Your task to perform on an android device: see creations saved in the google photos Image 0: 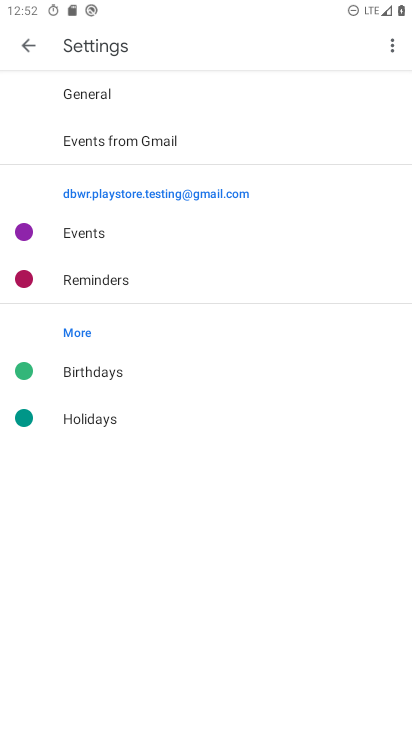
Step 0: press home button
Your task to perform on an android device: see creations saved in the google photos Image 1: 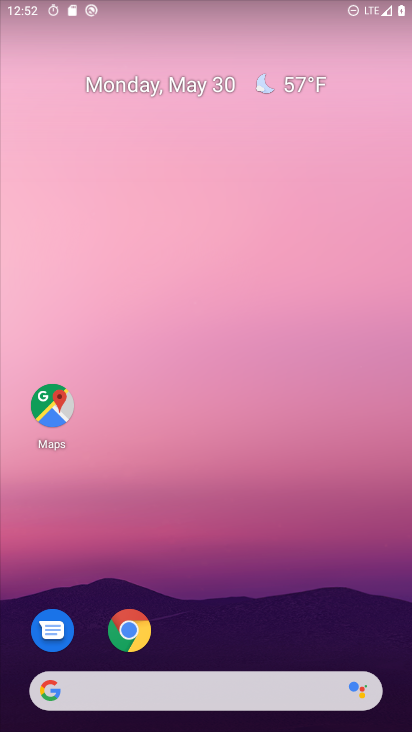
Step 1: drag from (273, 703) to (133, 169)
Your task to perform on an android device: see creations saved in the google photos Image 2: 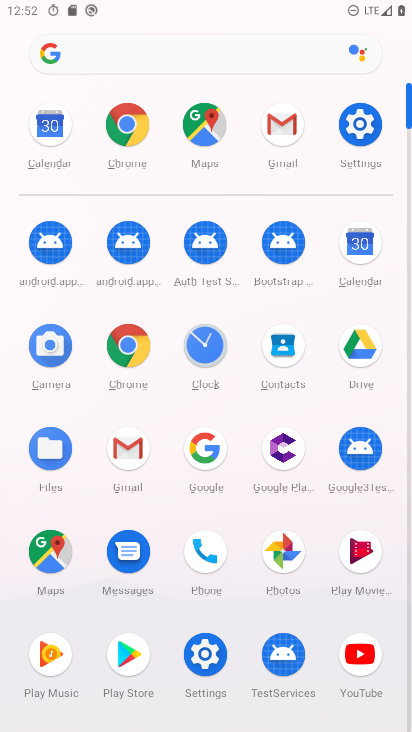
Step 2: click (272, 549)
Your task to perform on an android device: see creations saved in the google photos Image 3: 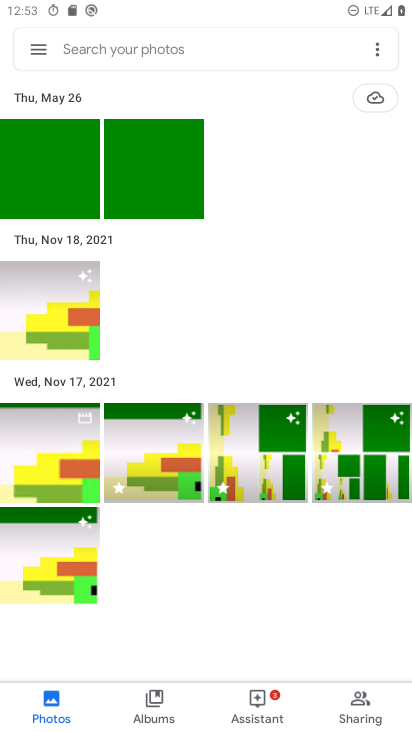
Step 3: click (334, 445)
Your task to perform on an android device: see creations saved in the google photos Image 4: 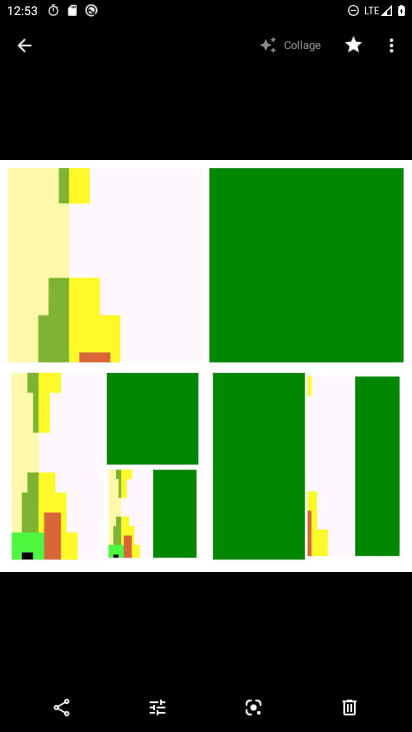
Step 4: click (388, 46)
Your task to perform on an android device: see creations saved in the google photos Image 5: 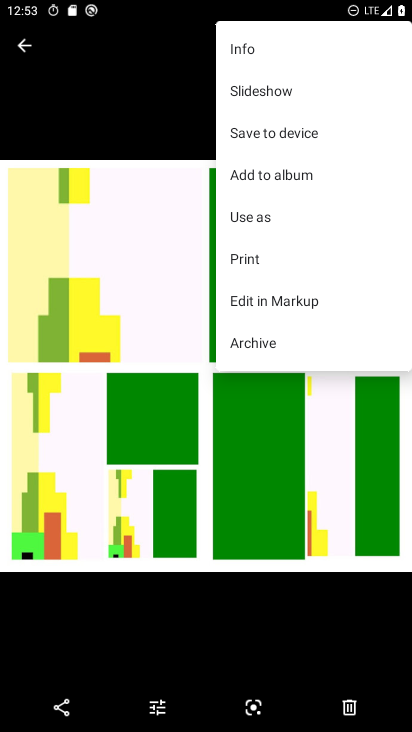
Step 5: click (265, 137)
Your task to perform on an android device: see creations saved in the google photos Image 6: 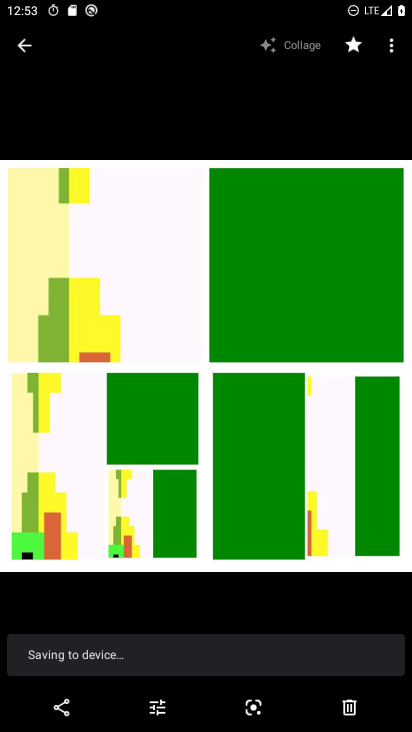
Step 6: task complete